Your task to perform on an android device: open app "Mercado Libre" Image 0: 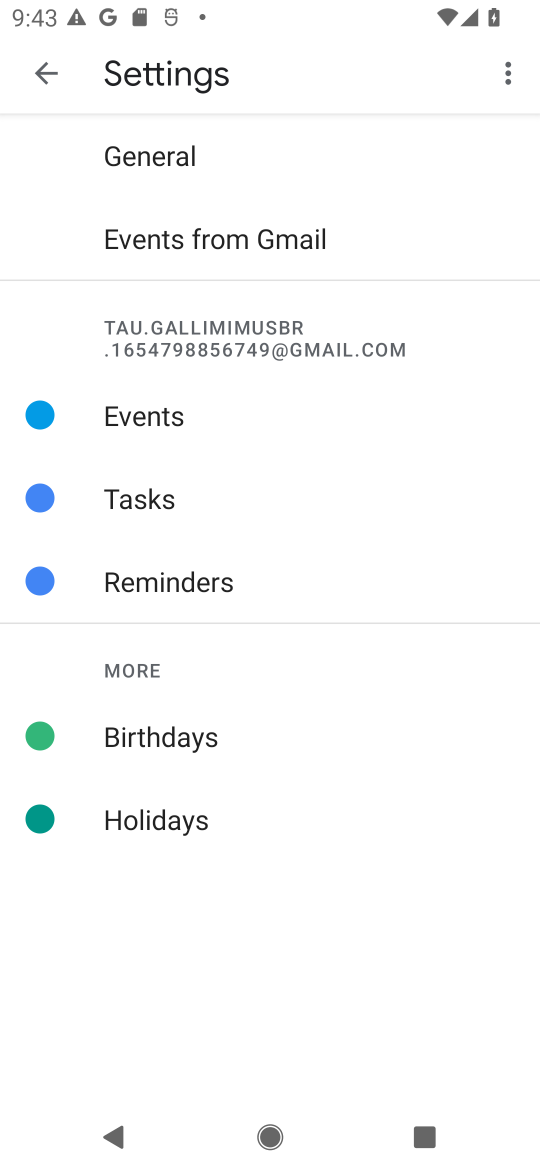
Step 0: press home button
Your task to perform on an android device: open app "Mercado Libre" Image 1: 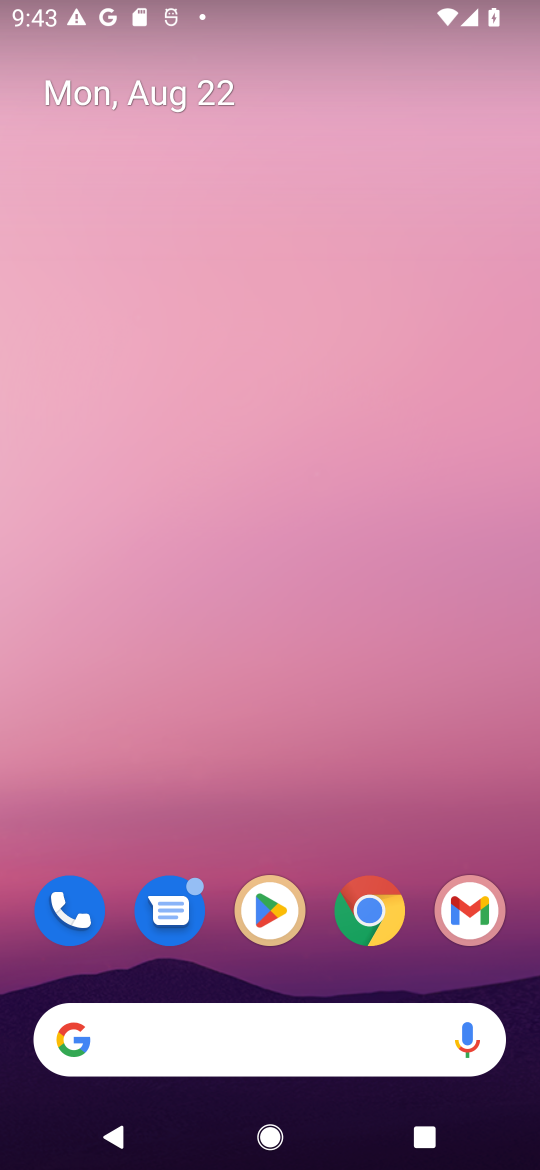
Step 1: click (277, 927)
Your task to perform on an android device: open app "Mercado Libre" Image 2: 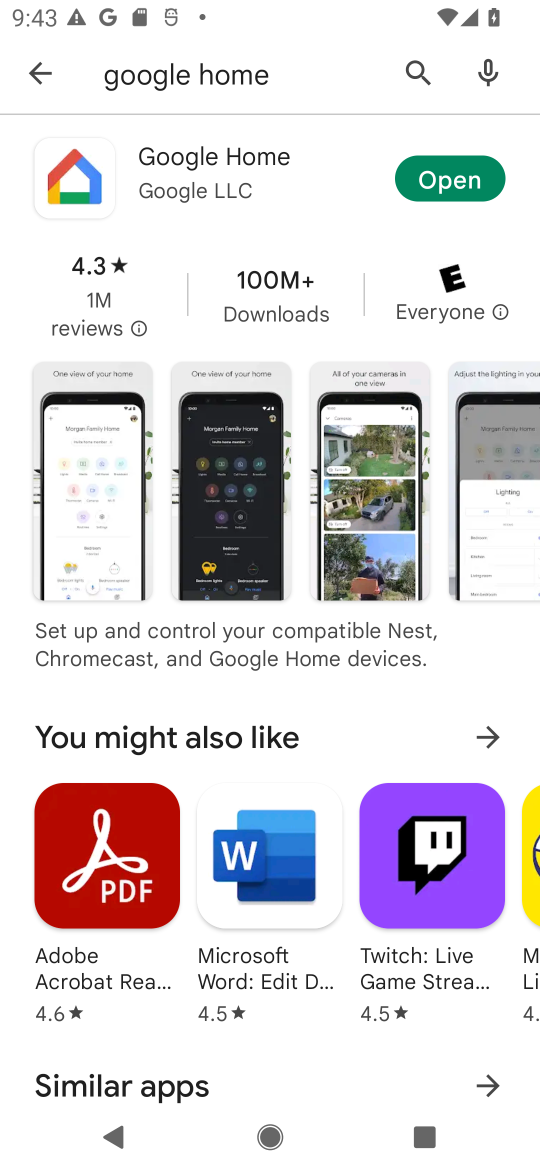
Step 2: click (411, 83)
Your task to perform on an android device: open app "Mercado Libre" Image 3: 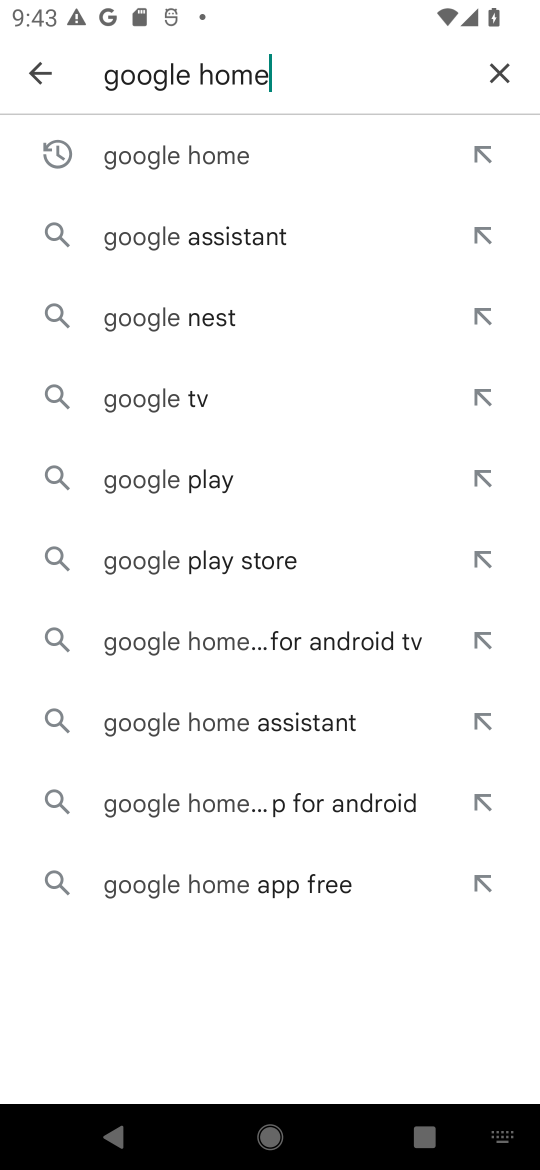
Step 3: click (506, 76)
Your task to perform on an android device: open app "Mercado Libre" Image 4: 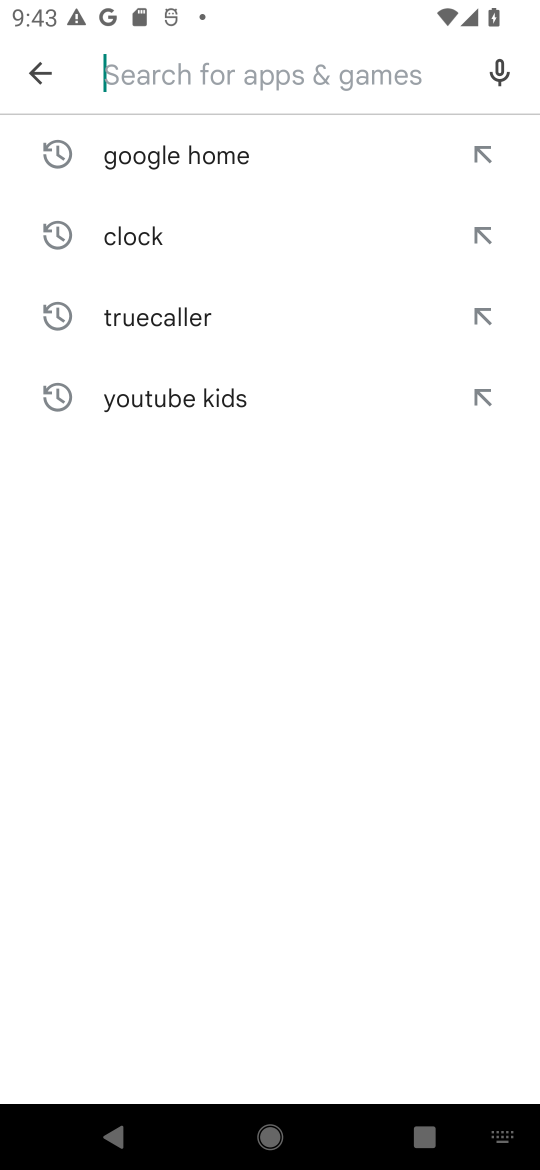
Step 4: type "Mercado Libre"
Your task to perform on an android device: open app "Mercado Libre" Image 5: 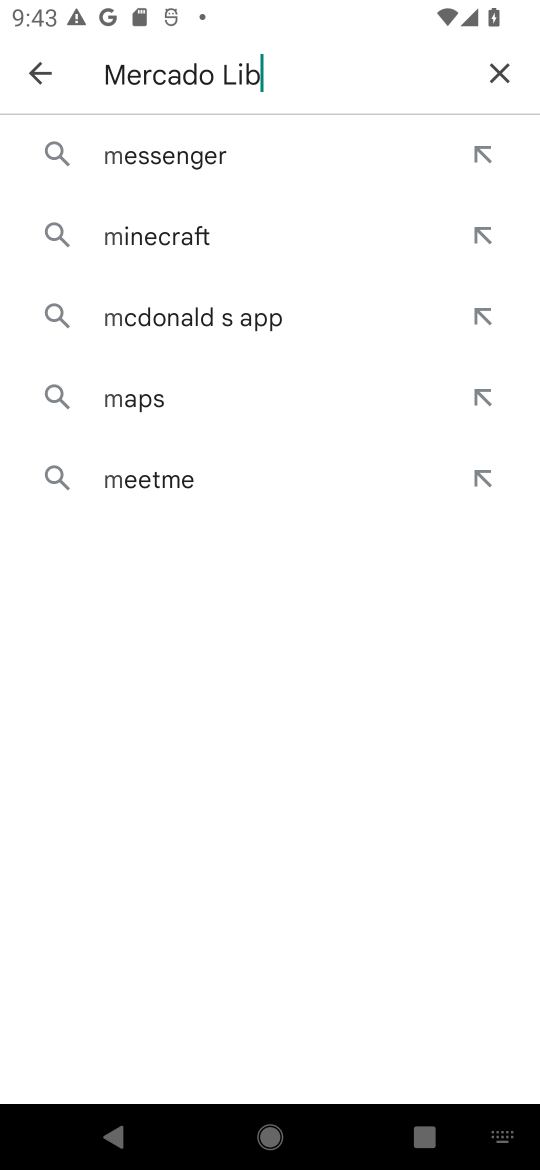
Step 5: type ""
Your task to perform on an android device: open app "Mercado Libre" Image 6: 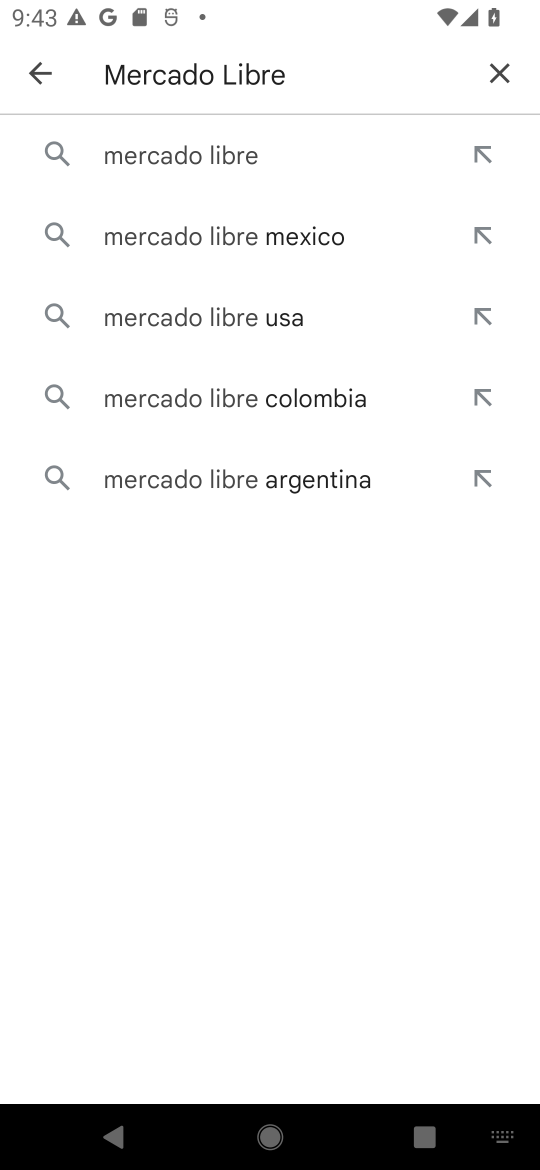
Step 6: click (230, 154)
Your task to perform on an android device: open app "Mercado Libre" Image 7: 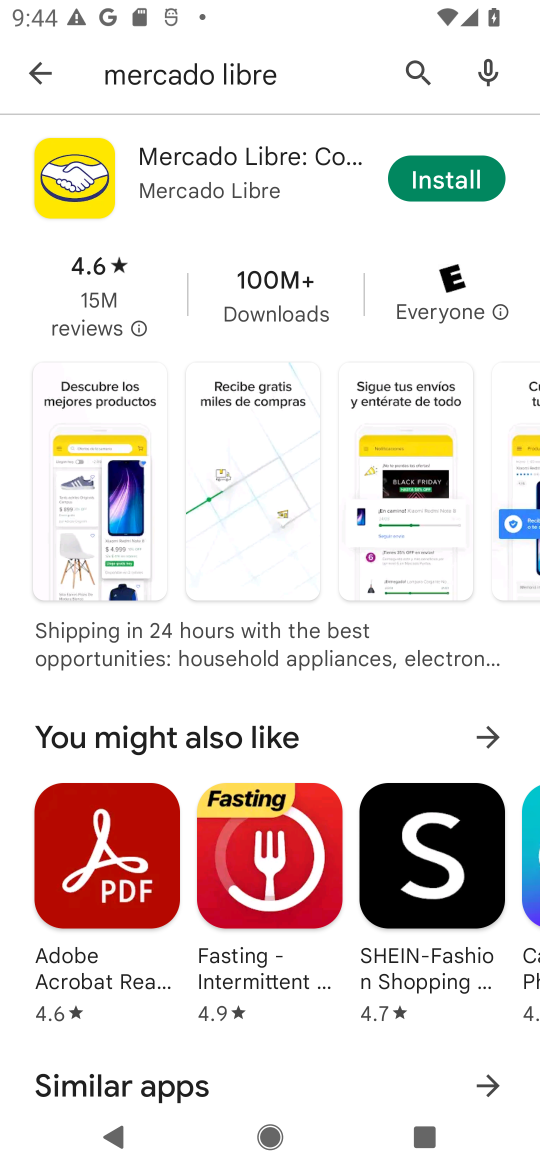
Step 7: task complete